Your task to perform on an android device: turn off data saver in the chrome app Image 0: 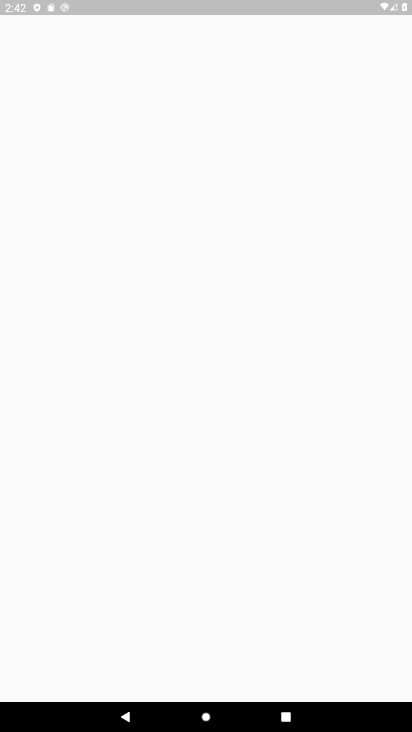
Step 0: press home button
Your task to perform on an android device: turn off data saver in the chrome app Image 1: 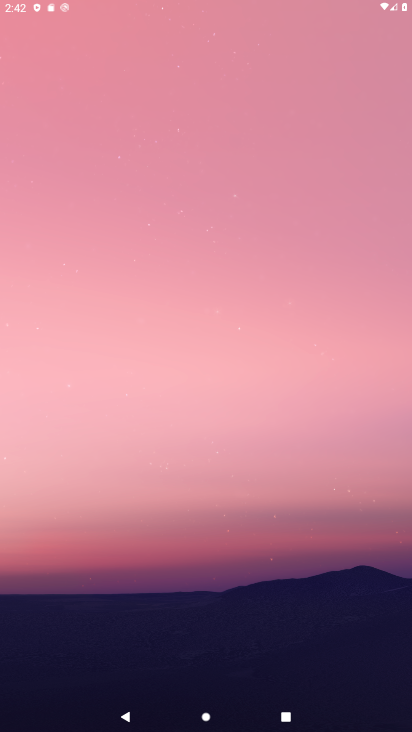
Step 1: drag from (252, 629) to (260, 243)
Your task to perform on an android device: turn off data saver in the chrome app Image 2: 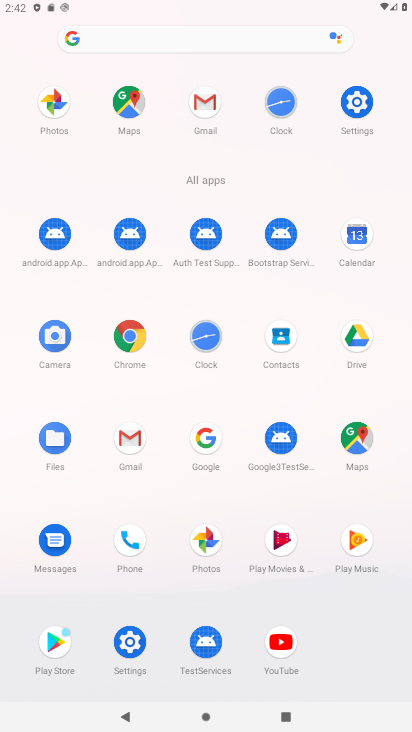
Step 2: drag from (171, 555) to (244, 217)
Your task to perform on an android device: turn off data saver in the chrome app Image 3: 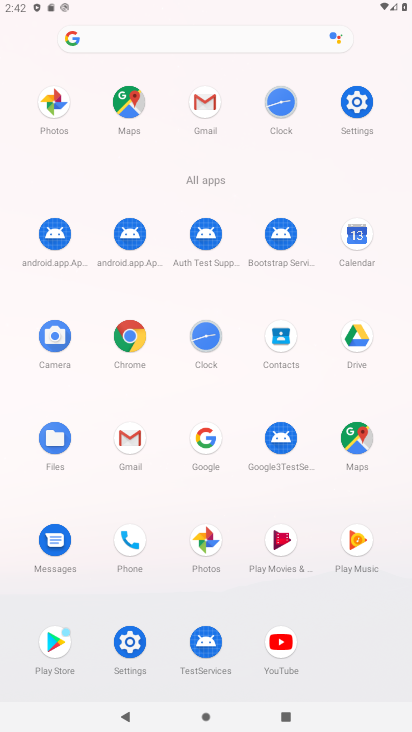
Step 3: click (138, 339)
Your task to perform on an android device: turn off data saver in the chrome app Image 4: 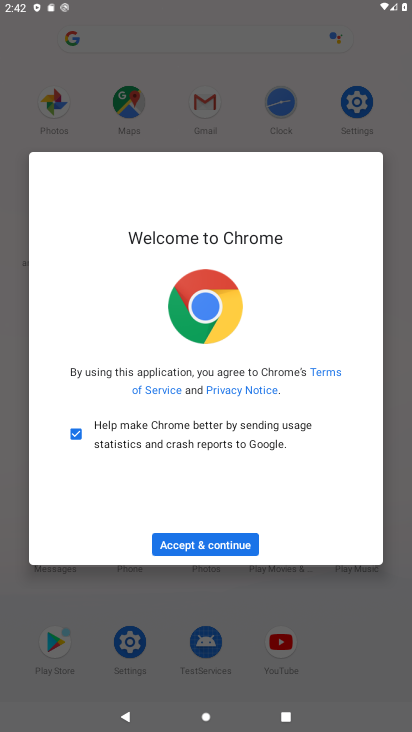
Step 4: click (206, 541)
Your task to perform on an android device: turn off data saver in the chrome app Image 5: 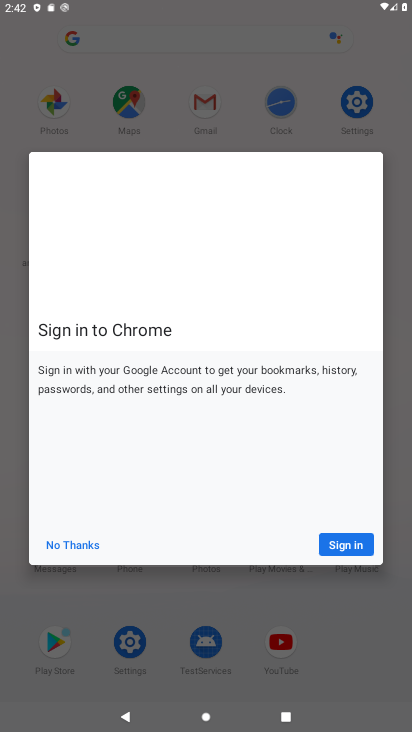
Step 5: click (47, 544)
Your task to perform on an android device: turn off data saver in the chrome app Image 6: 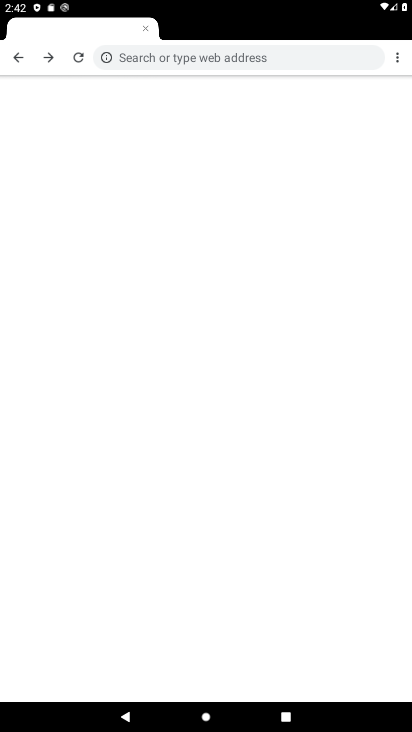
Step 6: click (392, 44)
Your task to perform on an android device: turn off data saver in the chrome app Image 7: 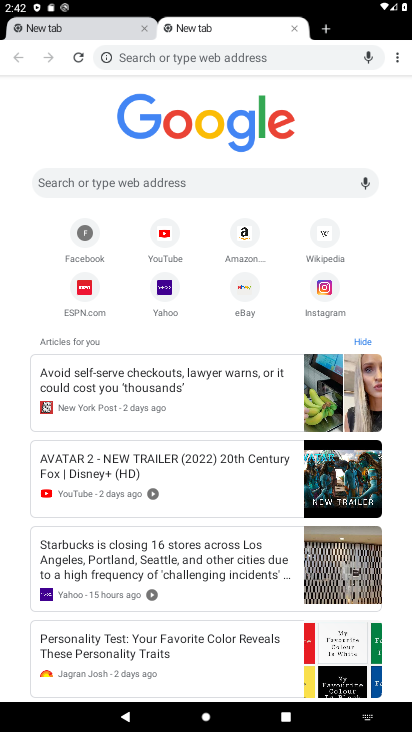
Step 7: click (402, 51)
Your task to perform on an android device: turn off data saver in the chrome app Image 8: 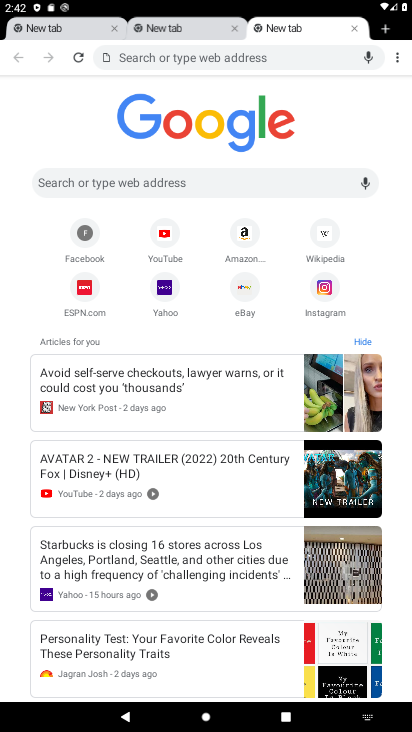
Step 8: click (395, 57)
Your task to perform on an android device: turn off data saver in the chrome app Image 9: 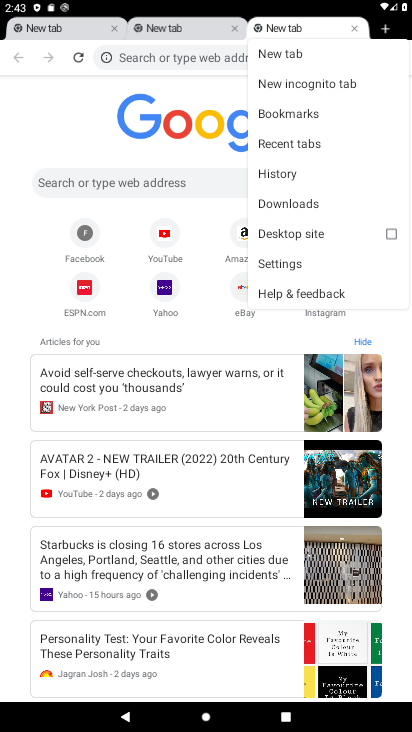
Step 9: click (279, 259)
Your task to perform on an android device: turn off data saver in the chrome app Image 10: 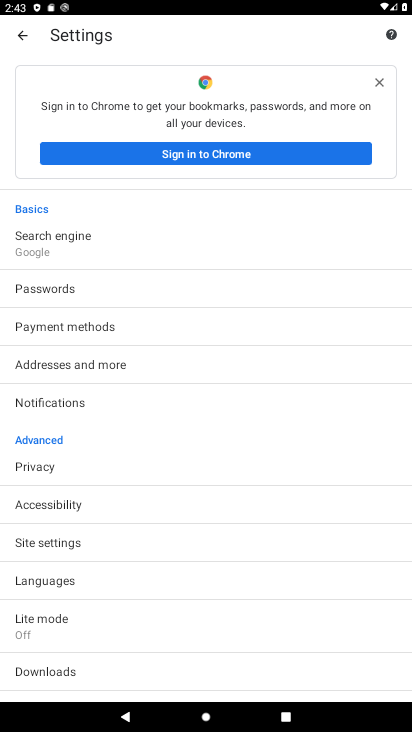
Step 10: click (39, 627)
Your task to perform on an android device: turn off data saver in the chrome app Image 11: 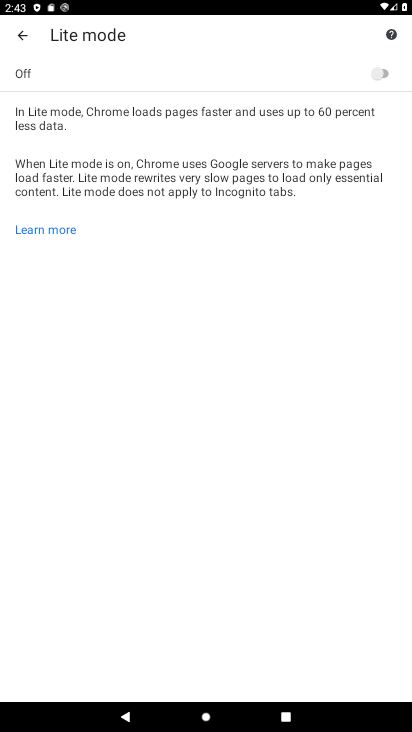
Step 11: task complete